Your task to perform on an android device: Go to location settings Image 0: 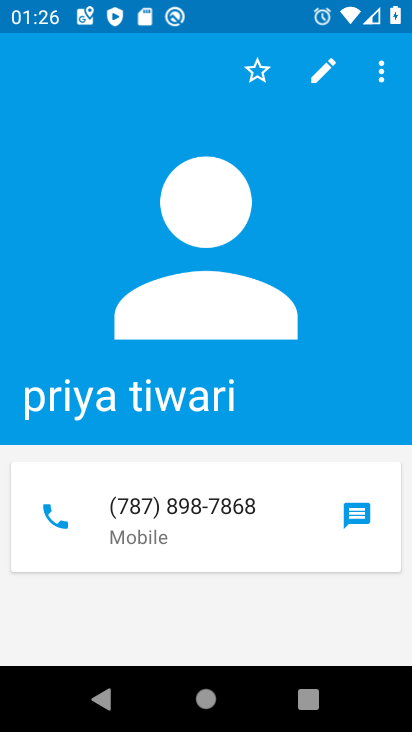
Step 0: press home button
Your task to perform on an android device: Go to location settings Image 1: 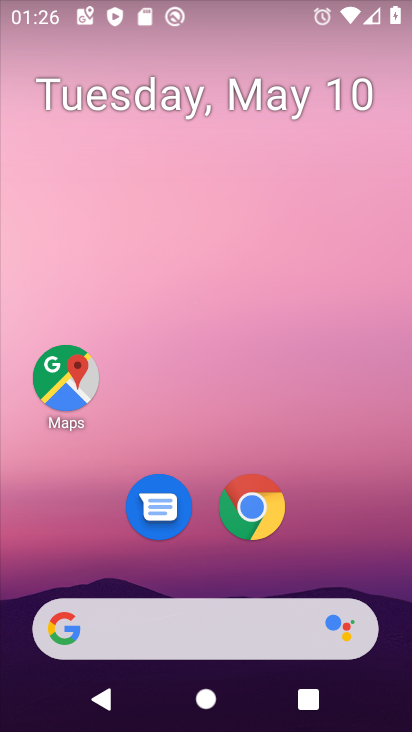
Step 1: drag from (206, 592) to (258, 261)
Your task to perform on an android device: Go to location settings Image 2: 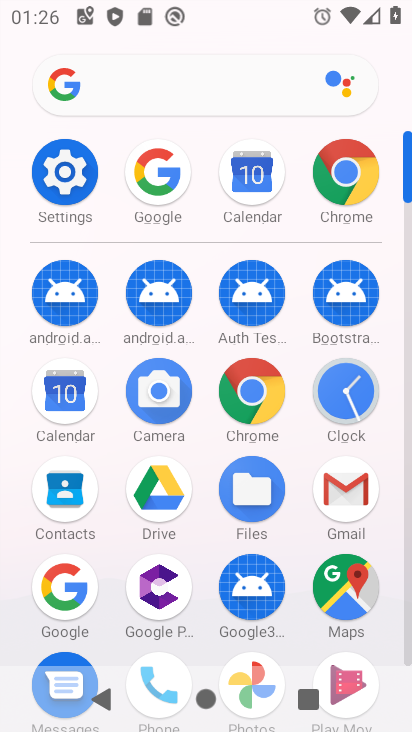
Step 2: click (62, 174)
Your task to perform on an android device: Go to location settings Image 3: 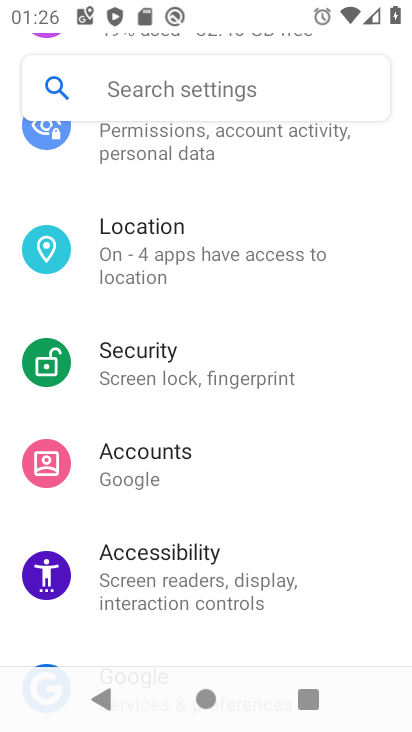
Step 3: click (141, 237)
Your task to perform on an android device: Go to location settings Image 4: 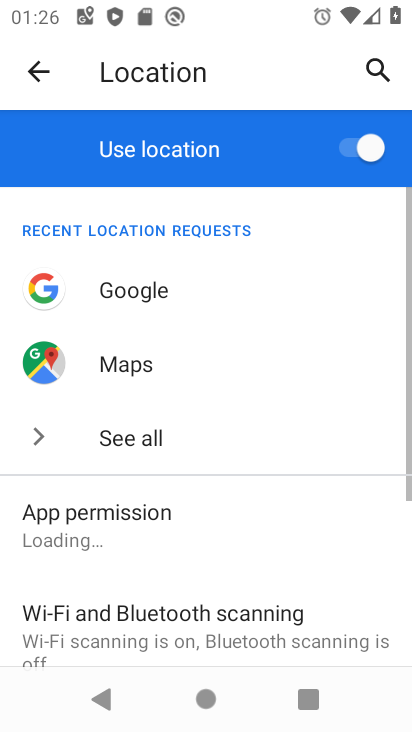
Step 4: task complete